Your task to perform on an android device: check battery use Image 0: 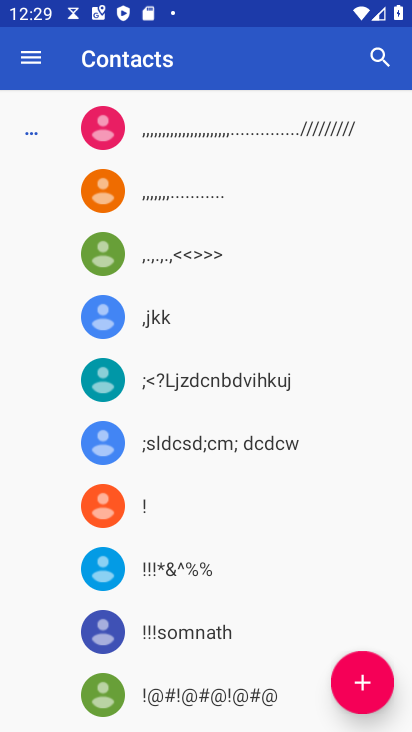
Step 0: press back button
Your task to perform on an android device: check battery use Image 1: 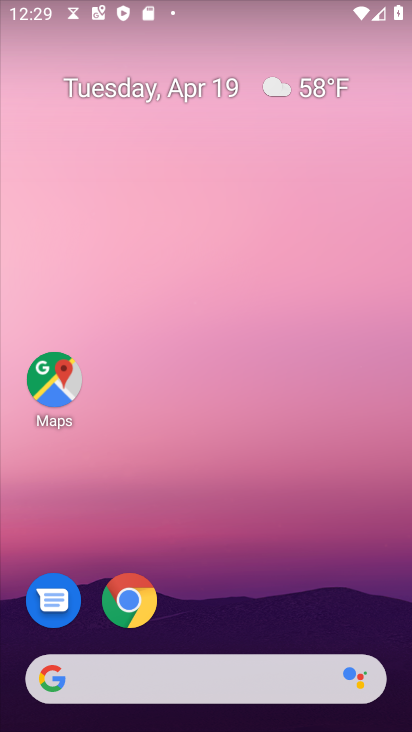
Step 1: drag from (245, 679) to (152, 24)
Your task to perform on an android device: check battery use Image 2: 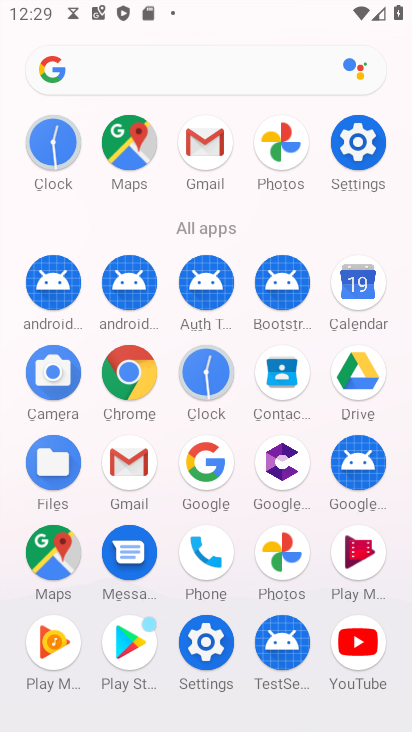
Step 2: click (371, 149)
Your task to perform on an android device: check battery use Image 3: 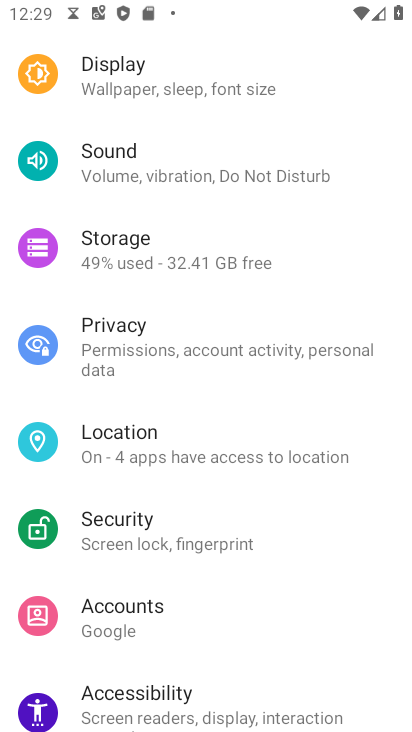
Step 3: drag from (199, 110) to (171, 565)
Your task to perform on an android device: check battery use Image 4: 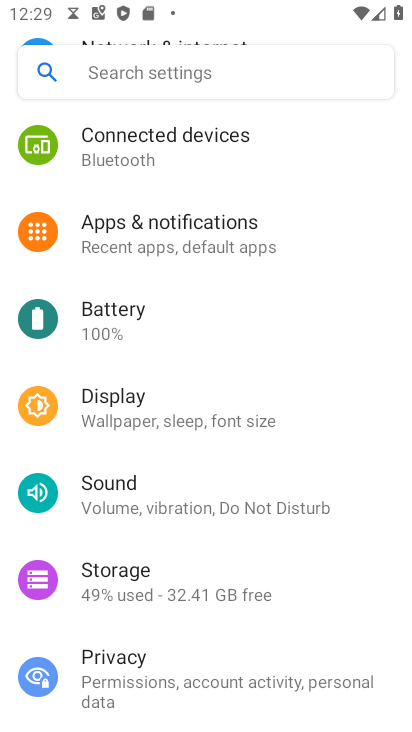
Step 4: click (133, 330)
Your task to perform on an android device: check battery use Image 5: 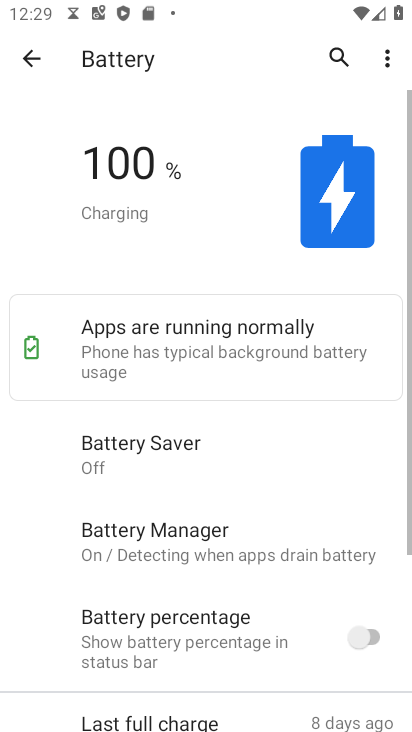
Step 5: click (391, 66)
Your task to perform on an android device: check battery use Image 6: 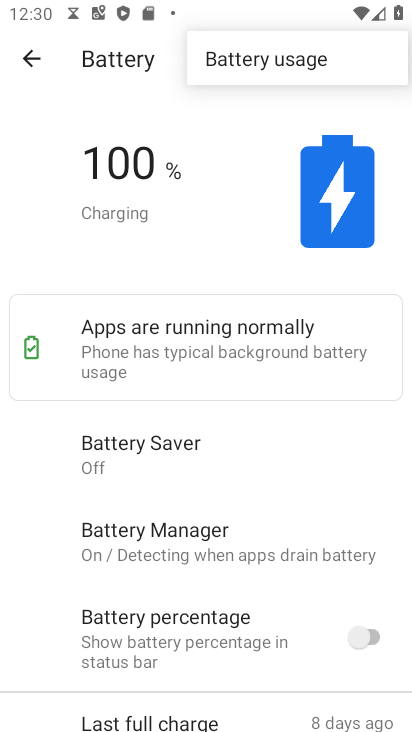
Step 6: click (295, 62)
Your task to perform on an android device: check battery use Image 7: 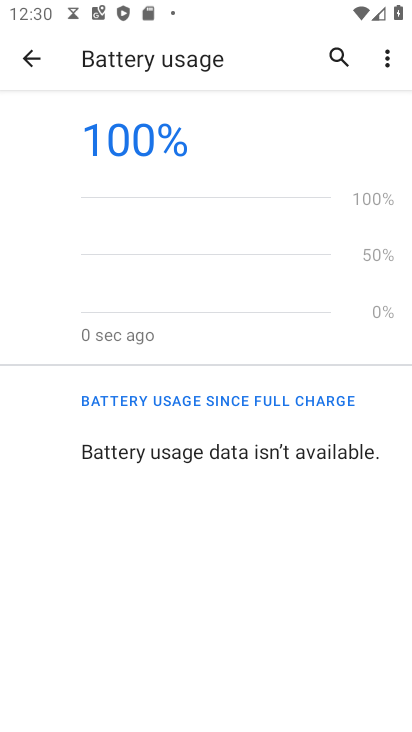
Step 7: task complete